Your task to perform on an android device: Search for seafood restaurants on Google Maps Image 0: 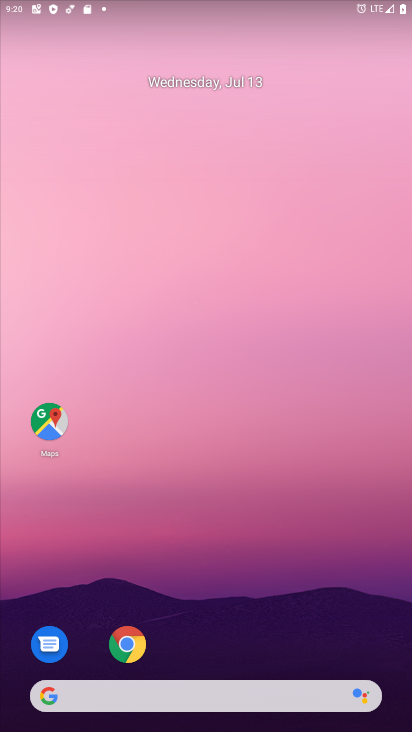
Step 0: drag from (201, 728) to (338, 9)
Your task to perform on an android device: Search for seafood restaurants on Google Maps Image 1: 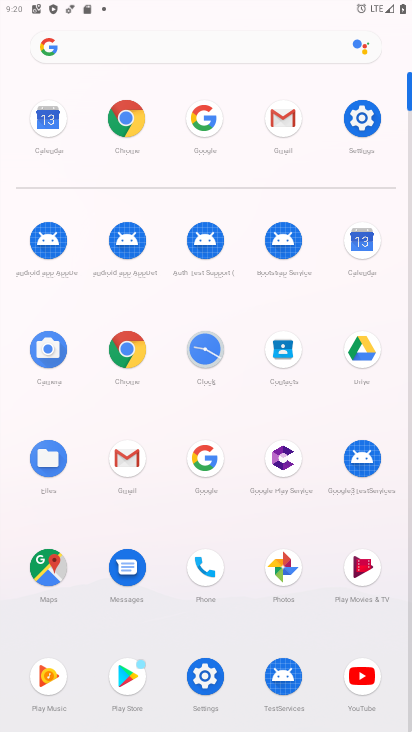
Step 1: click (44, 562)
Your task to perform on an android device: Search for seafood restaurants on Google Maps Image 2: 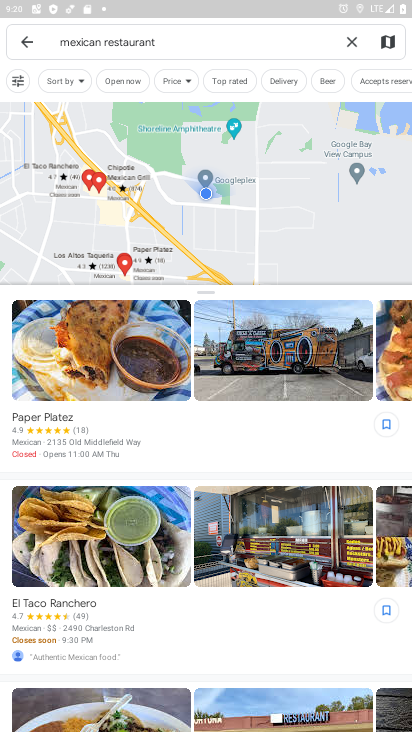
Step 2: click (348, 39)
Your task to perform on an android device: Search for seafood restaurants on Google Maps Image 3: 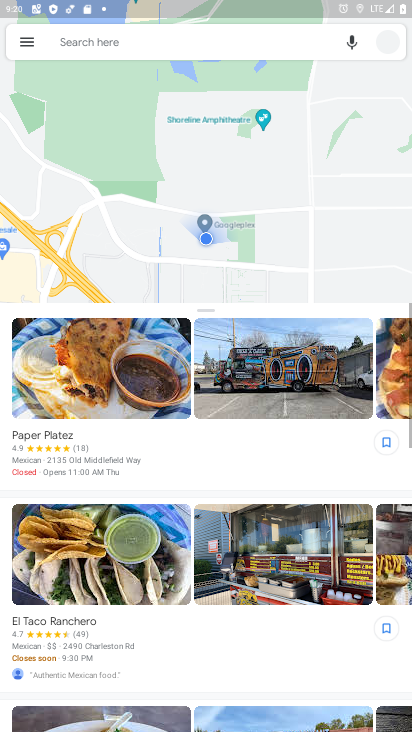
Step 3: click (143, 42)
Your task to perform on an android device: Search for seafood restaurants on Google Maps Image 4: 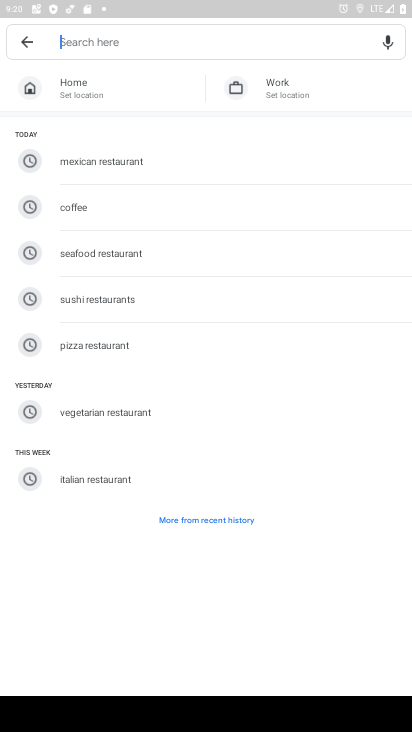
Step 4: type "seafood restaurants"
Your task to perform on an android device: Search for seafood restaurants on Google Maps Image 5: 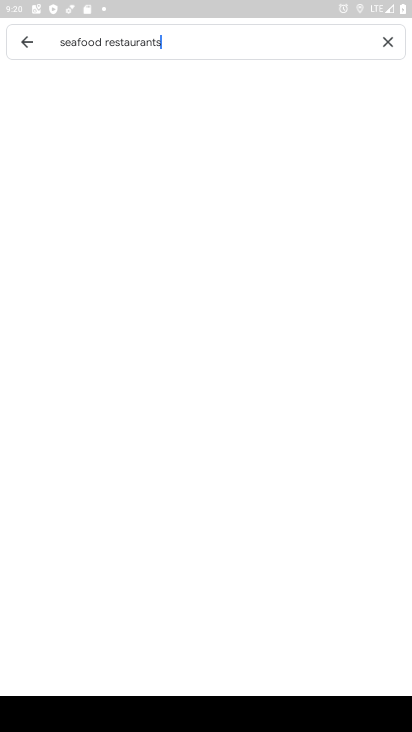
Step 5: type ""
Your task to perform on an android device: Search for seafood restaurants on Google Maps Image 6: 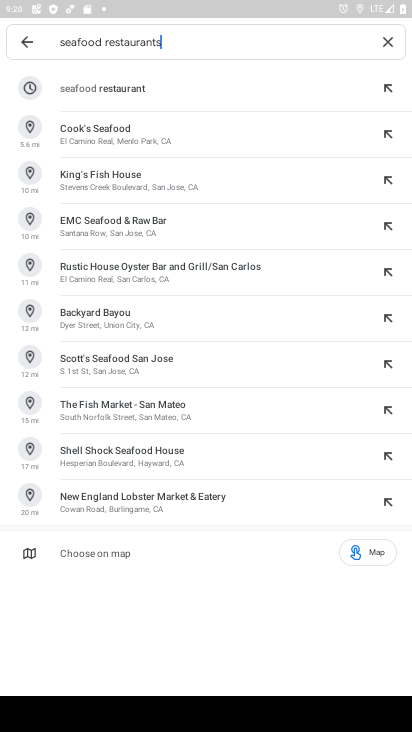
Step 6: click (96, 88)
Your task to perform on an android device: Search for seafood restaurants on Google Maps Image 7: 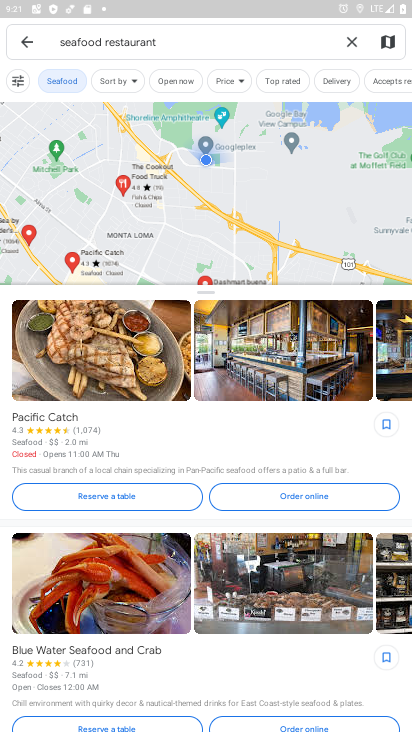
Step 7: task complete